Your task to perform on an android device: set the timer Image 0: 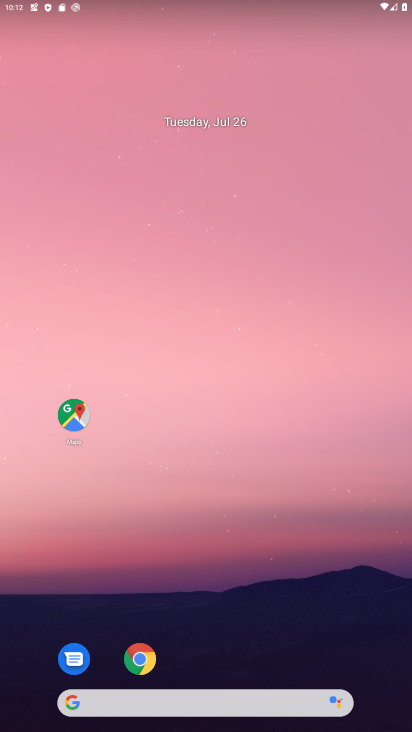
Step 0: drag from (384, 714) to (324, 79)
Your task to perform on an android device: set the timer Image 1: 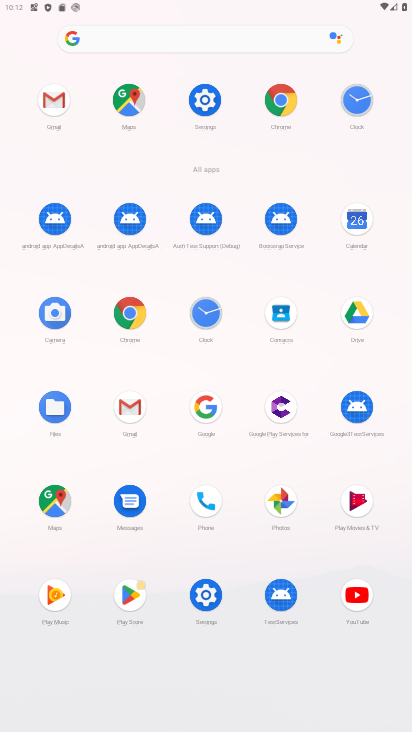
Step 1: click (211, 306)
Your task to perform on an android device: set the timer Image 2: 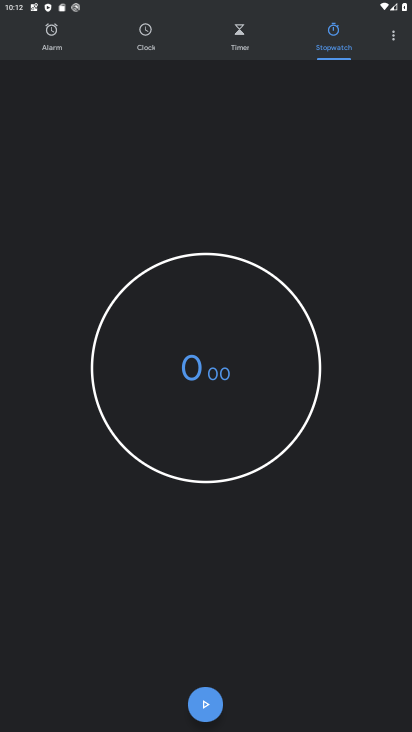
Step 2: click (233, 39)
Your task to perform on an android device: set the timer Image 3: 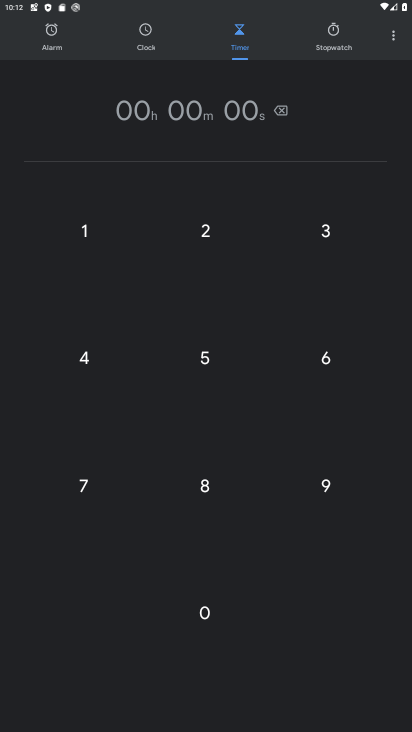
Step 3: click (204, 358)
Your task to perform on an android device: set the timer Image 4: 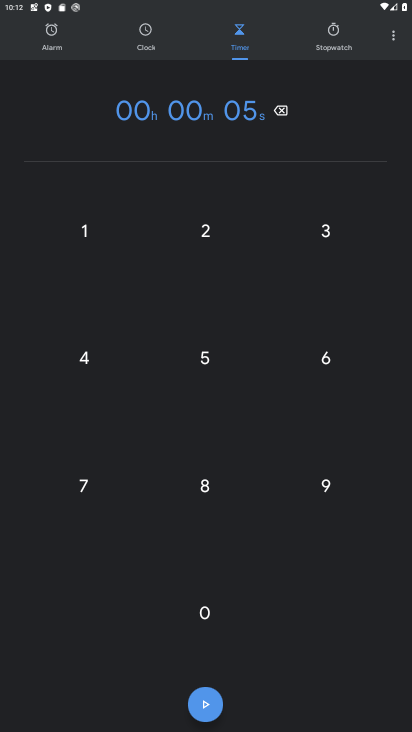
Step 4: click (204, 358)
Your task to perform on an android device: set the timer Image 5: 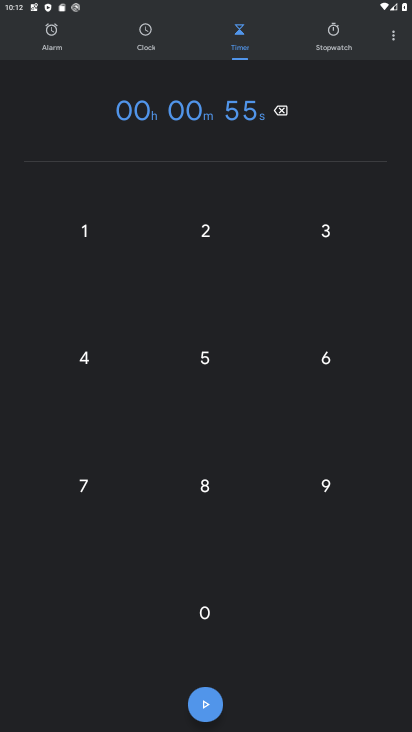
Step 5: click (191, 696)
Your task to perform on an android device: set the timer Image 6: 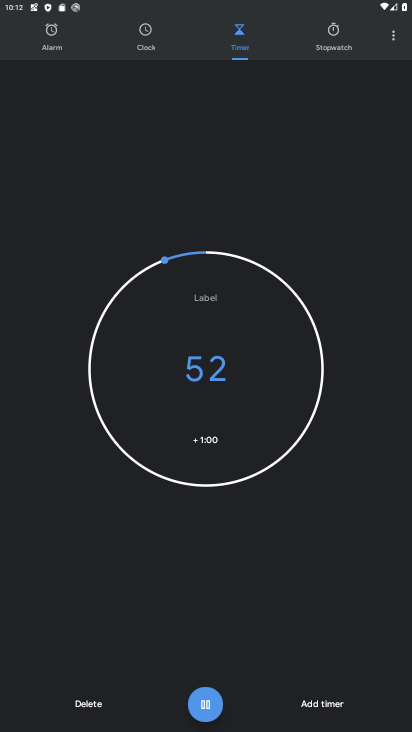
Step 6: task complete